Your task to perform on an android device: add a label to a message in the gmail app Image 0: 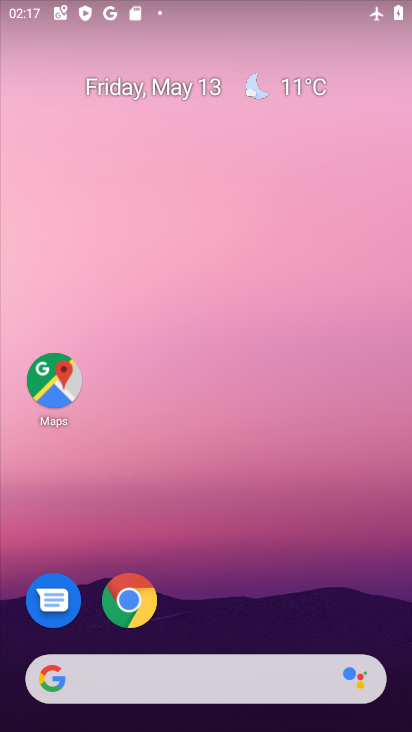
Step 0: drag from (199, 618) to (269, 221)
Your task to perform on an android device: add a label to a message in the gmail app Image 1: 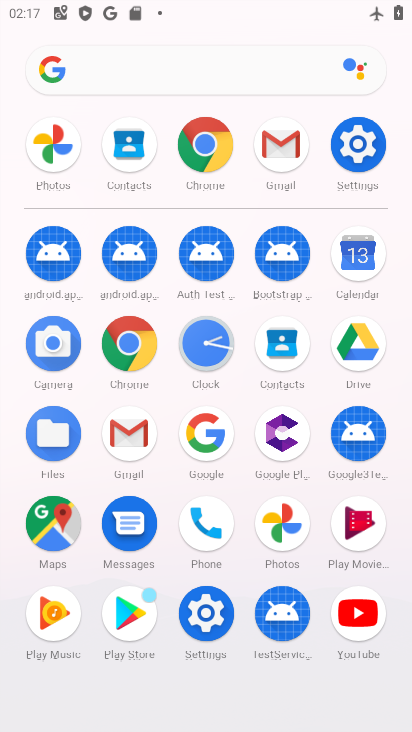
Step 1: click (127, 444)
Your task to perform on an android device: add a label to a message in the gmail app Image 2: 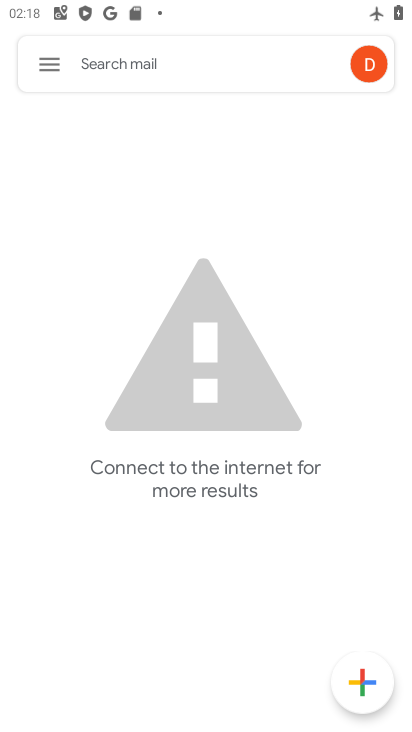
Step 2: click (301, 501)
Your task to perform on an android device: add a label to a message in the gmail app Image 3: 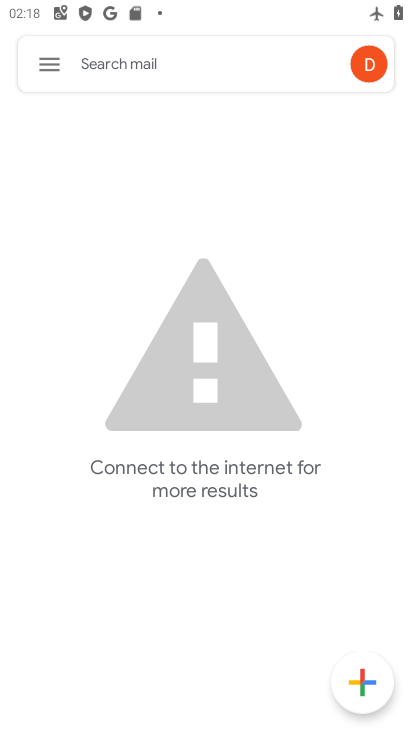
Step 3: click (48, 60)
Your task to perform on an android device: add a label to a message in the gmail app Image 4: 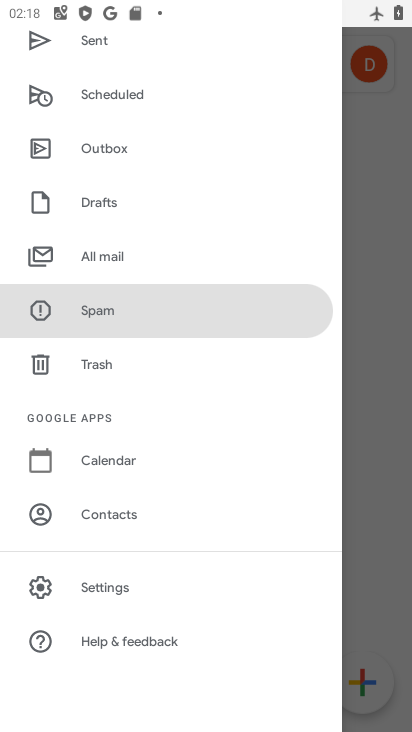
Step 4: drag from (177, 157) to (242, 586)
Your task to perform on an android device: add a label to a message in the gmail app Image 5: 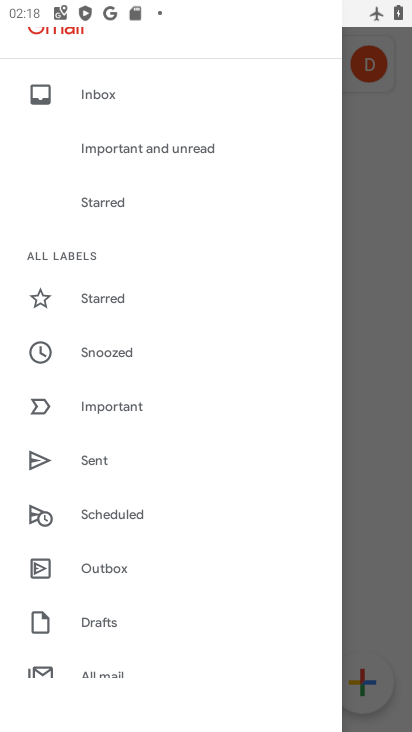
Step 5: click (114, 93)
Your task to perform on an android device: add a label to a message in the gmail app Image 6: 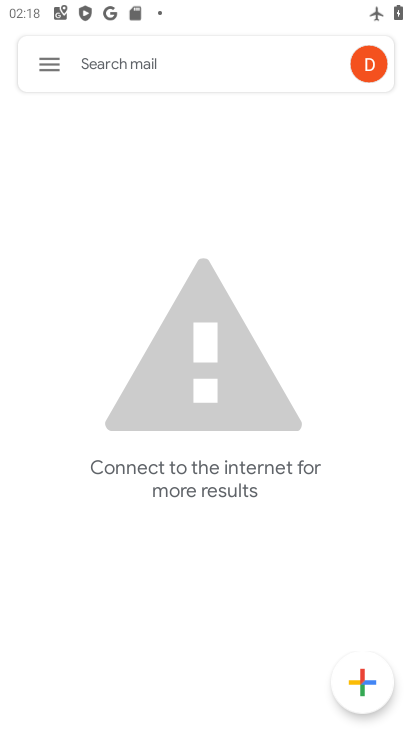
Step 6: task complete